Your task to perform on an android device: choose inbox layout in the gmail app Image 0: 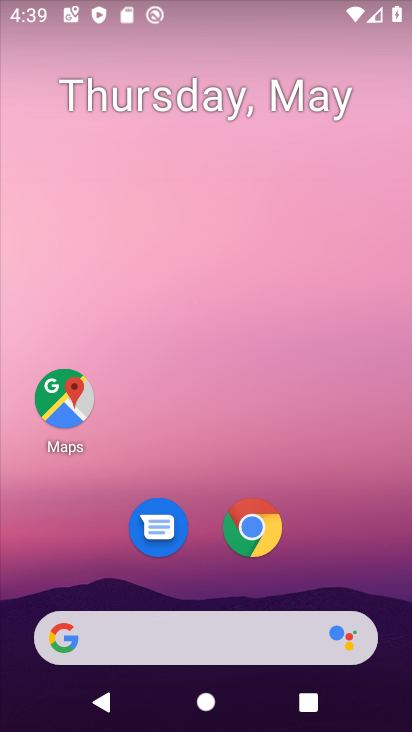
Step 0: drag from (363, 487) to (363, 2)
Your task to perform on an android device: choose inbox layout in the gmail app Image 1: 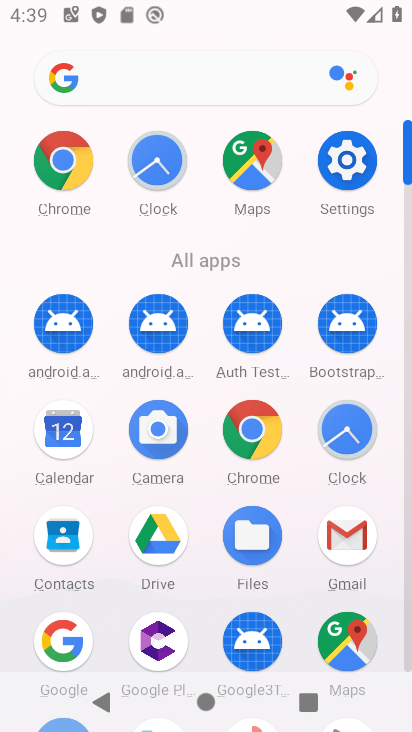
Step 1: drag from (361, 429) to (308, 108)
Your task to perform on an android device: choose inbox layout in the gmail app Image 2: 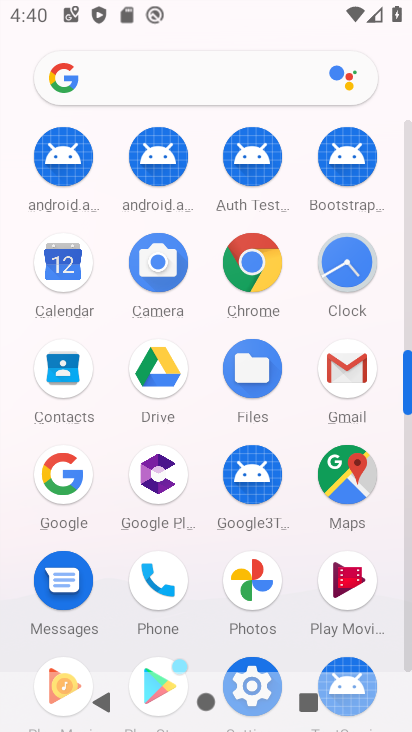
Step 2: click (358, 379)
Your task to perform on an android device: choose inbox layout in the gmail app Image 3: 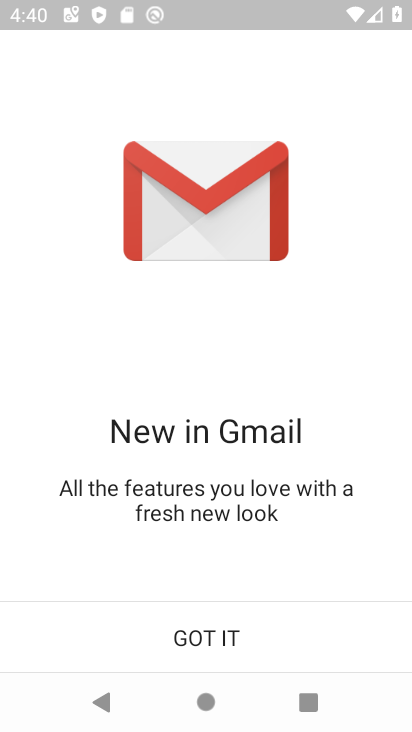
Step 3: click (174, 631)
Your task to perform on an android device: choose inbox layout in the gmail app Image 4: 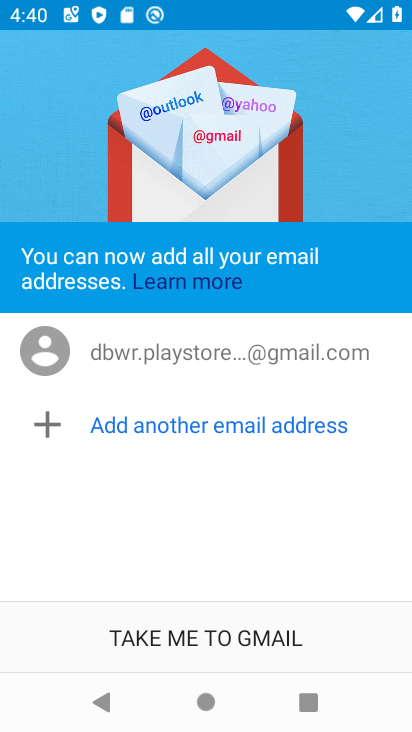
Step 4: click (194, 643)
Your task to perform on an android device: choose inbox layout in the gmail app Image 5: 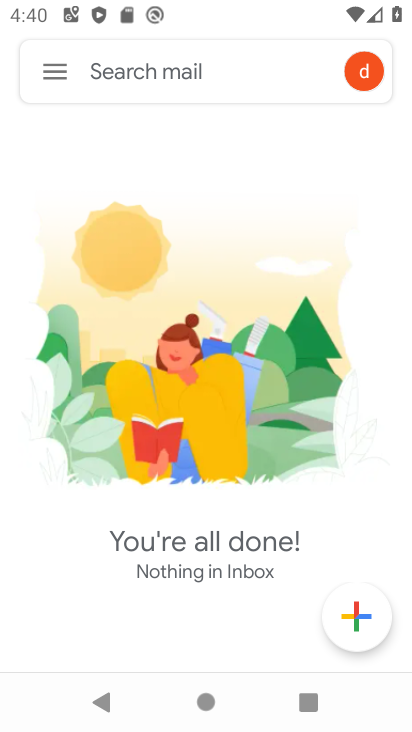
Step 5: click (55, 73)
Your task to perform on an android device: choose inbox layout in the gmail app Image 6: 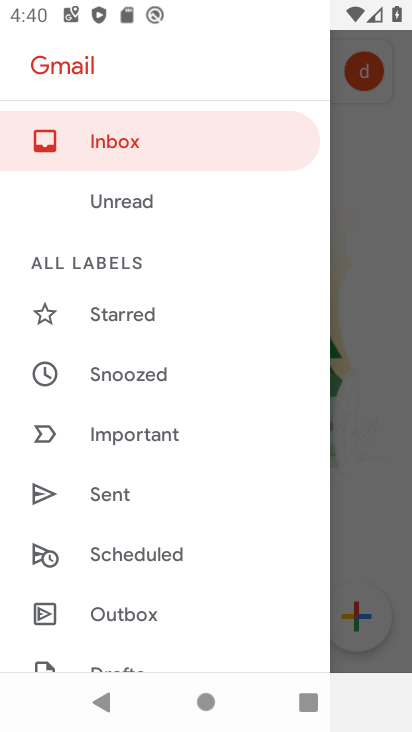
Step 6: drag from (143, 546) to (192, 125)
Your task to perform on an android device: choose inbox layout in the gmail app Image 7: 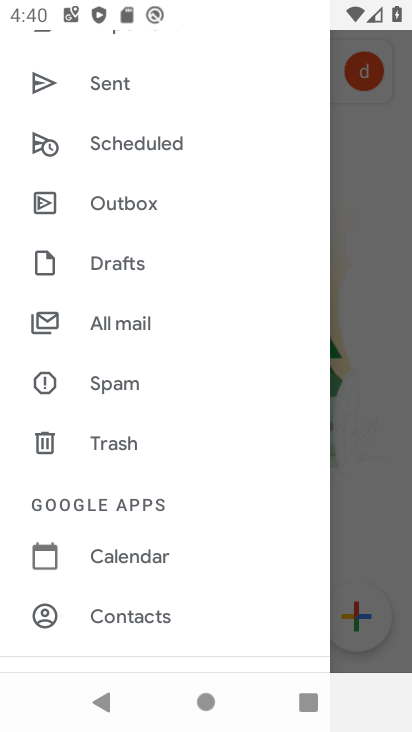
Step 7: drag from (91, 626) to (183, 132)
Your task to perform on an android device: choose inbox layout in the gmail app Image 8: 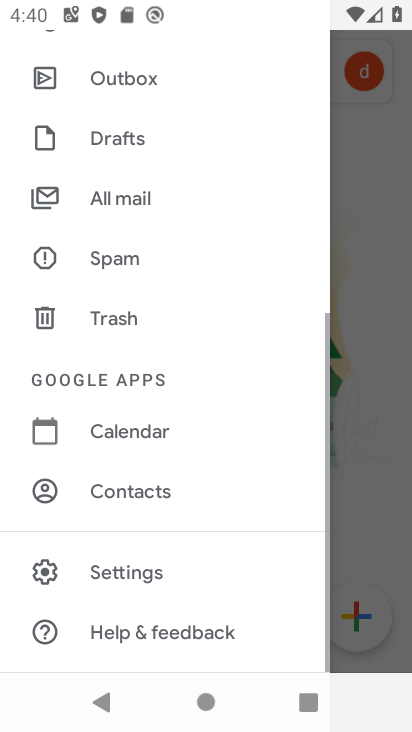
Step 8: click (98, 591)
Your task to perform on an android device: choose inbox layout in the gmail app Image 9: 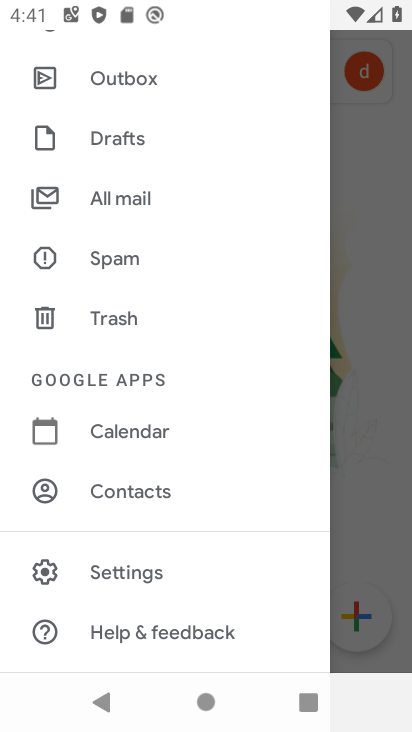
Step 9: click (151, 572)
Your task to perform on an android device: choose inbox layout in the gmail app Image 10: 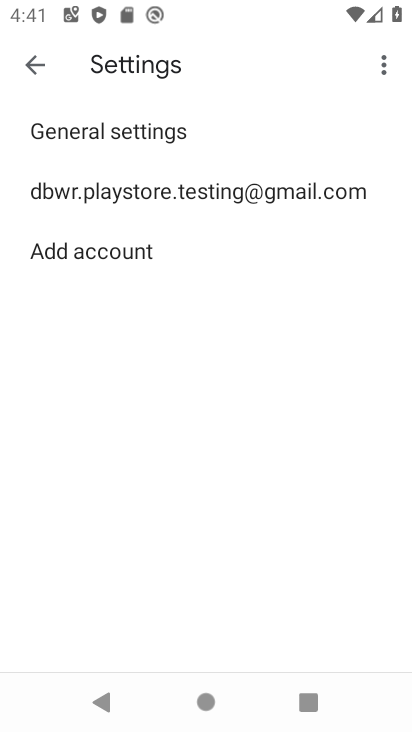
Step 10: click (195, 186)
Your task to perform on an android device: choose inbox layout in the gmail app Image 11: 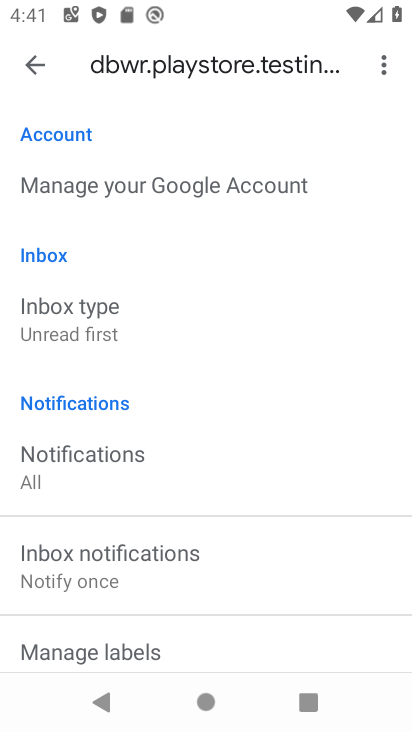
Step 11: click (50, 330)
Your task to perform on an android device: choose inbox layout in the gmail app Image 12: 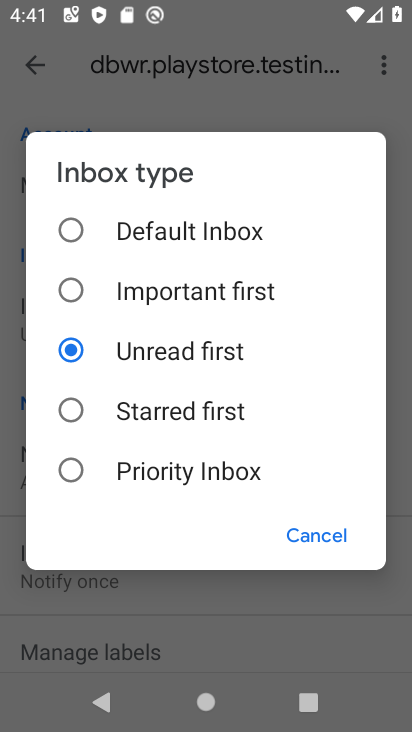
Step 12: click (75, 410)
Your task to perform on an android device: choose inbox layout in the gmail app Image 13: 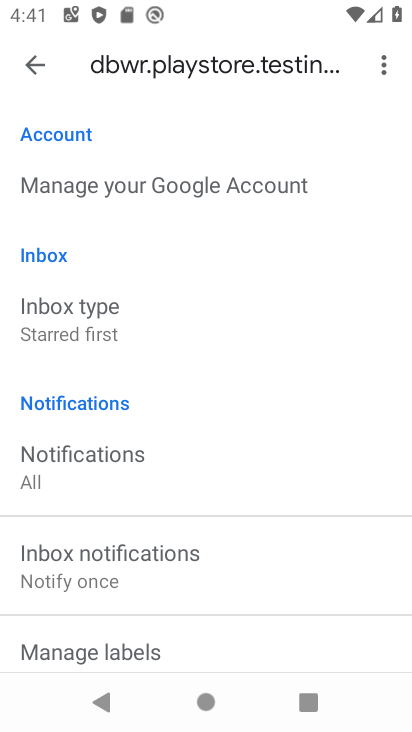
Step 13: task complete